Your task to perform on an android device: Search for pizza restaurants on Maps Image 0: 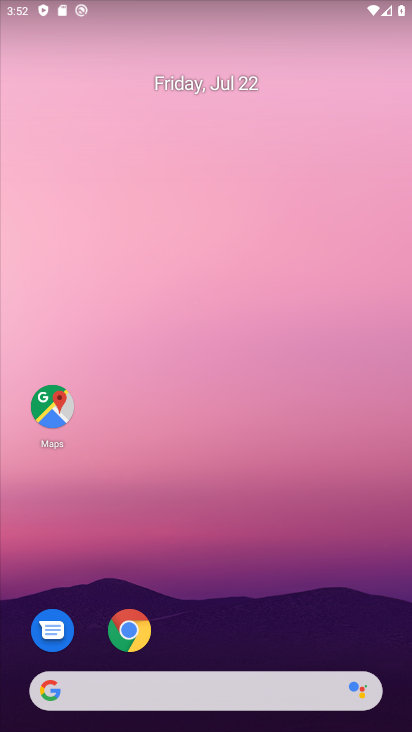
Step 0: drag from (234, 659) to (213, 76)
Your task to perform on an android device: Search for pizza restaurants on Maps Image 1: 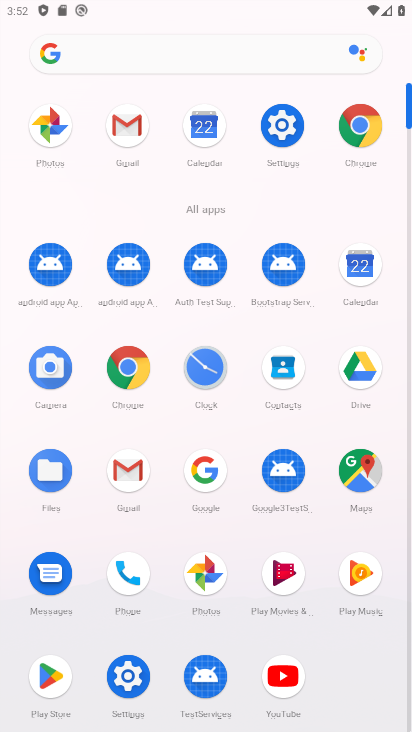
Step 1: click (348, 478)
Your task to perform on an android device: Search for pizza restaurants on Maps Image 2: 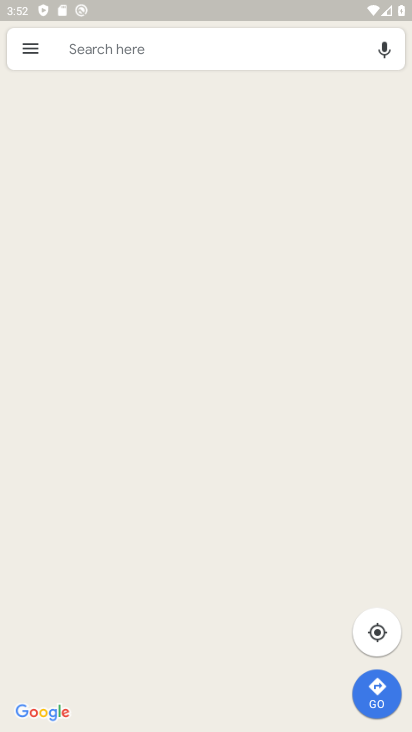
Step 2: click (301, 40)
Your task to perform on an android device: Search for pizza restaurants on Maps Image 3: 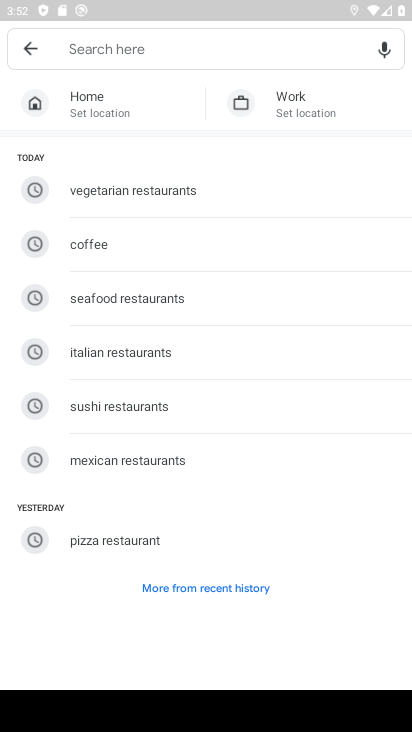
Step 3: type "pizza restaurant"
Your task to perform on an android device: Search for pizza restaurants on Maps Image 4: 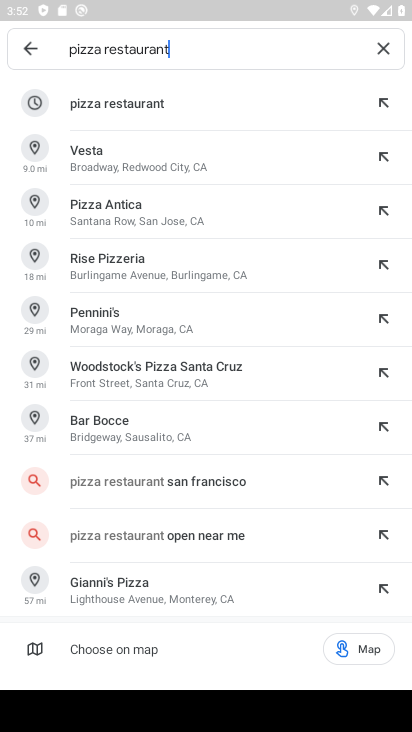
Step 4: click (145, 122)
Your task to perform on an android device: Search for pizza restaurants on Maps Image 5: 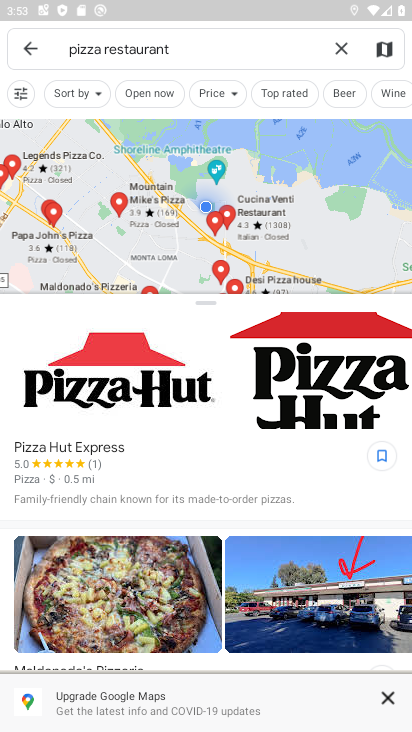
Step 5: task complete